Your task to perform on an android device: toggle show notifications on the lock screen Image 0: 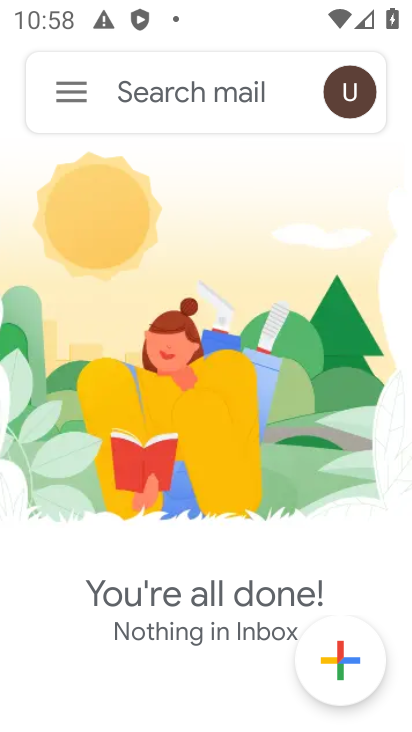
Step 0: task complete